Your task to perform on an android device: Show me popular games on the Play Store Image 0: 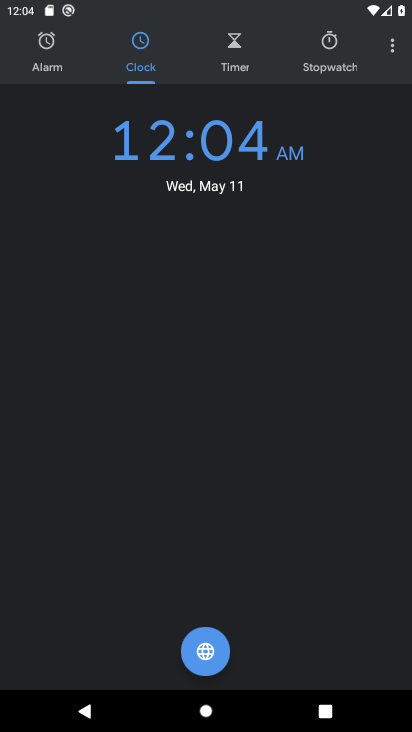
Step 0: press home button
Your task to perform on an android device: Show me popular games on the Play Store Image 1: 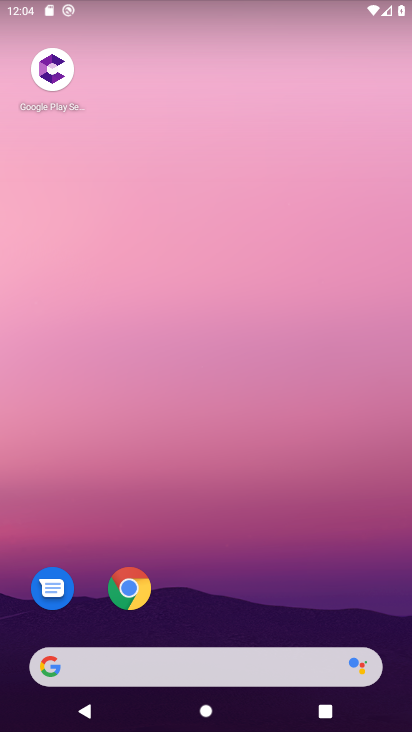
Step 1: drag from (185, 653) to (187, 274)
Your task to perform on an android device: Show me popular games on the Play Store Image 2: 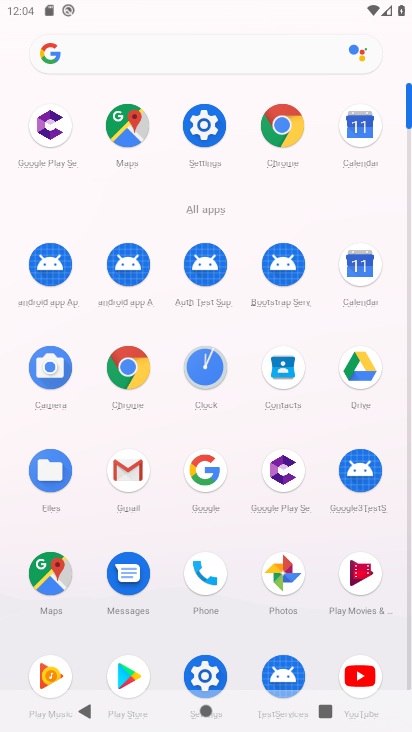
Step 2: drag from (241, 632) to (207, 302)
Your task to perform on an android device: Show me popular games on the Play Store Image 3: 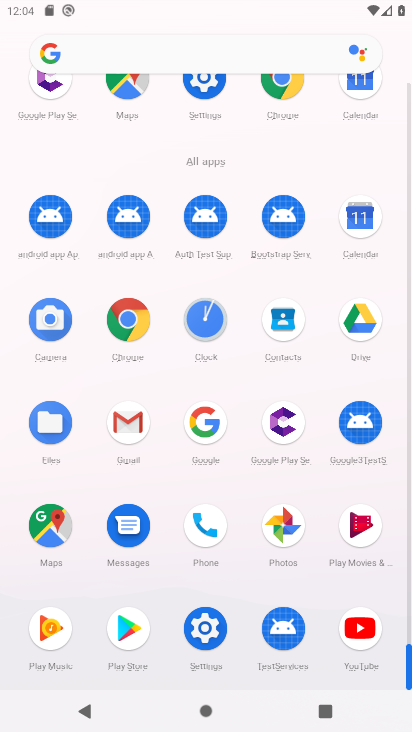
Step 3: click (123, 616)
Your task to perform on an android device: Show me popular games on the Play Store Image 4: 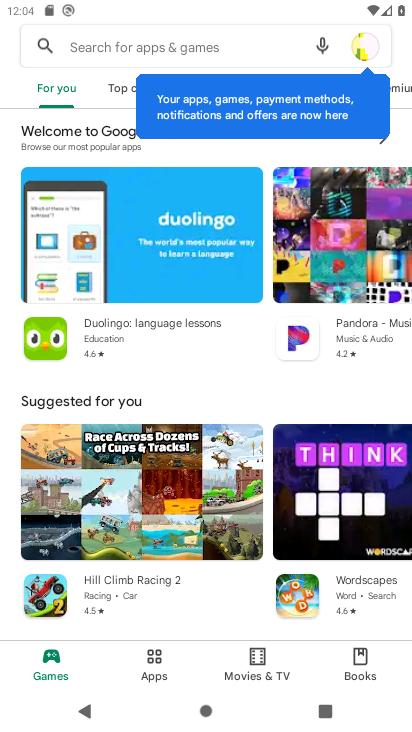
Step 4: click (207, 39)
Your task to perform on an android device: Show me popular games on the Play Store Image 5: 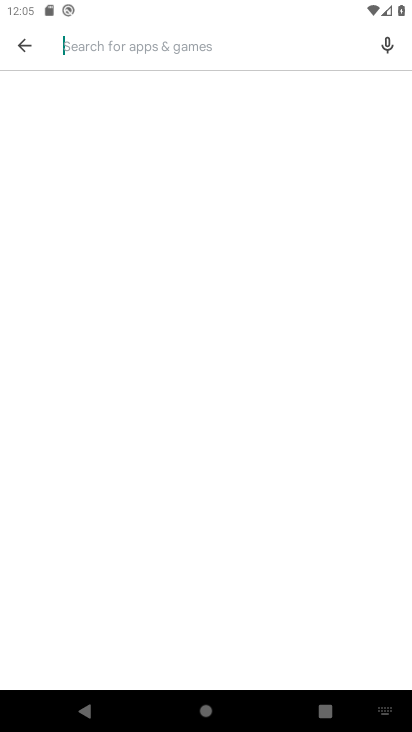
Step 5: type "popular games"
Your task to perform on an android device: Show me popular games on the Play Store Image 6: 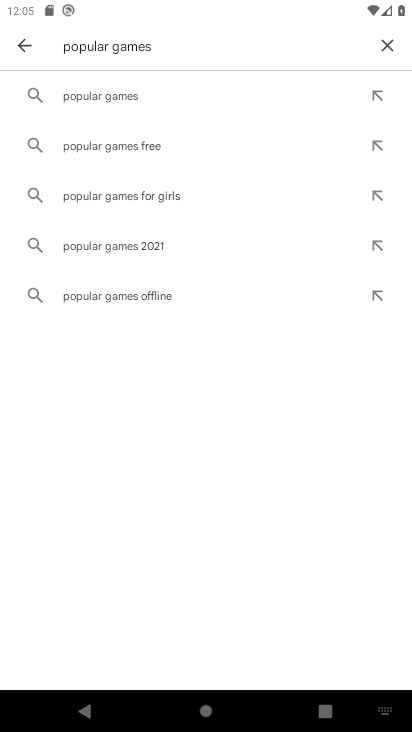
Step 6: click (105, 92)
Your task to perform on an android device: Show me popular games on the Play Store Image 7: 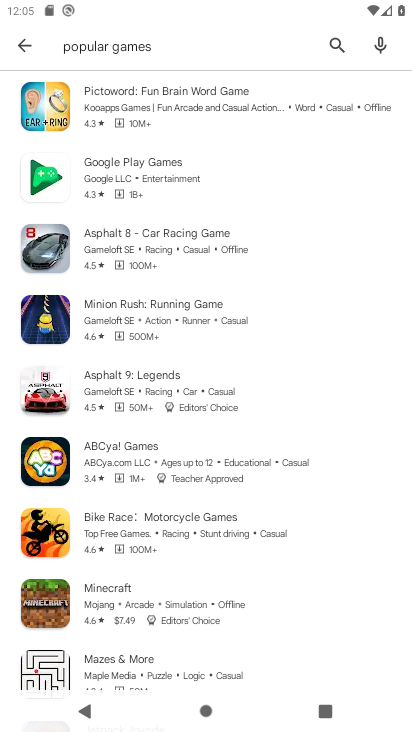
Step 7: task complete